Your task to perform on an android device: Open Google Chrome Image 0: 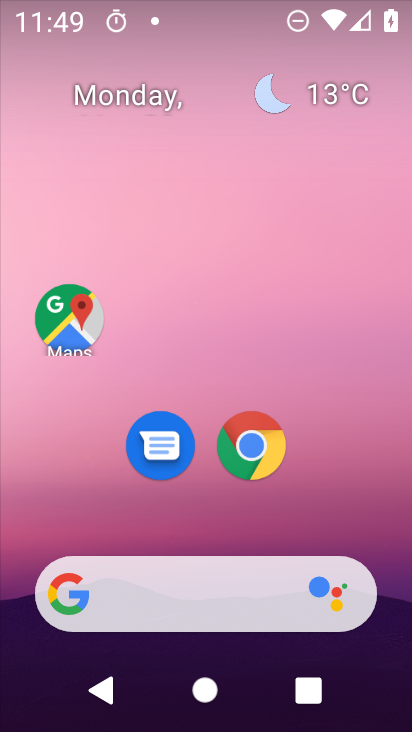
Step 0: click (260, 442)
Your task to perform on an android device: Open Google Chrome Image 1: 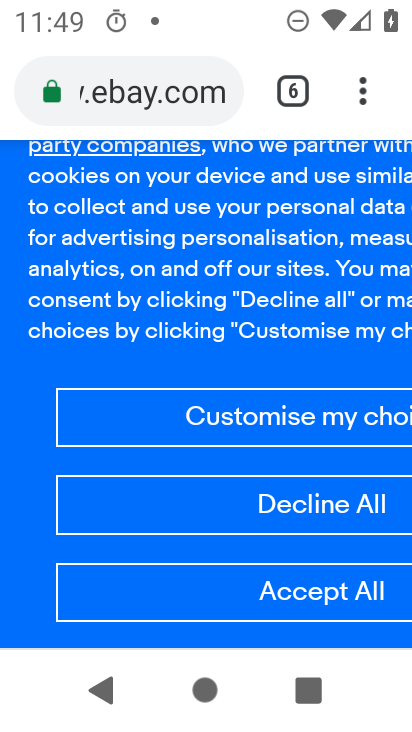
Step 1: task complete